Your task to perform on an android device: Search for pizza restaurants on Maps Image 0: 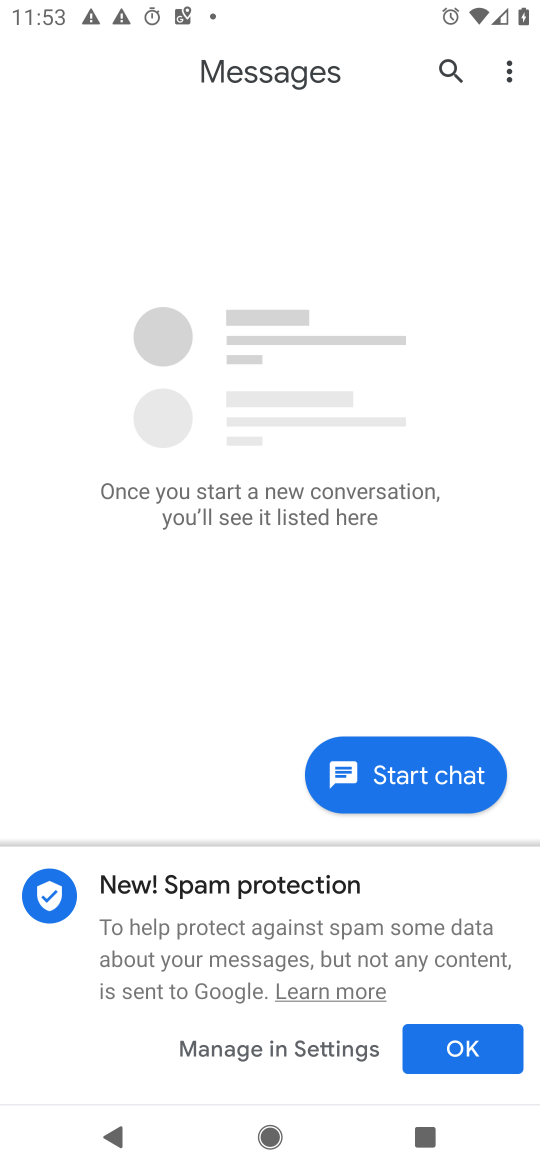
Step 0: click (313, 612)
Your task to perform on an android device: Search for pizza restaurants on Maps Image 1: 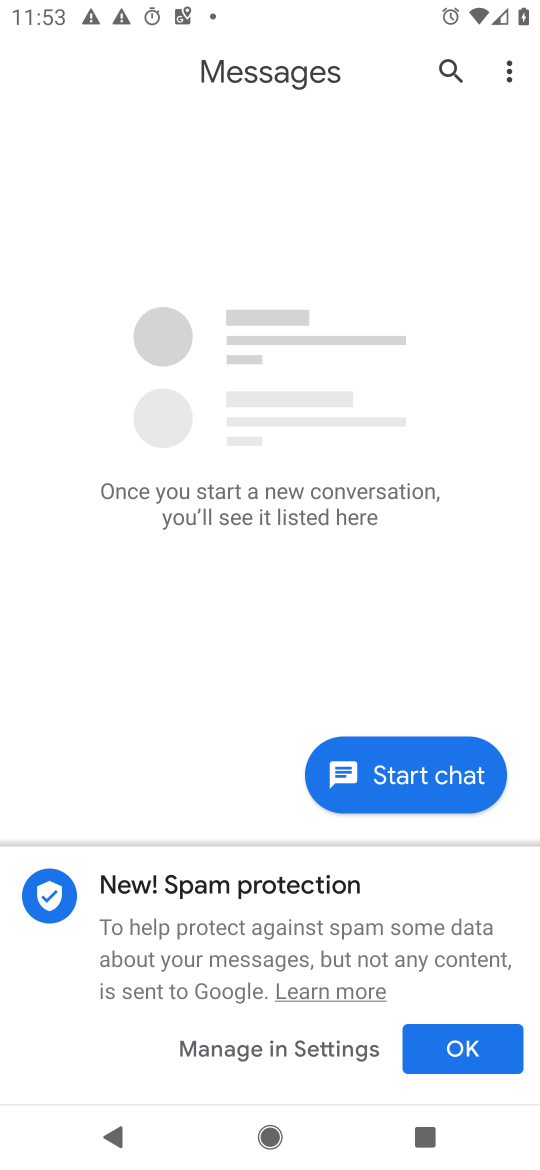
Step 1: press home button
Your task to perform on an android device: Search for pizza restaurants on Maps Image 2: 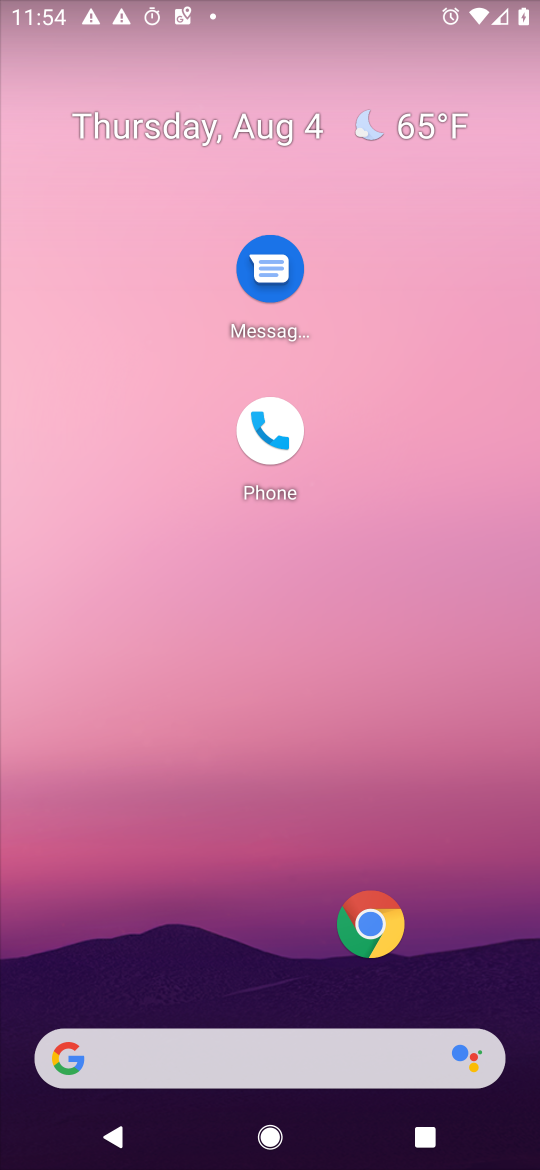
Step 2: drag from (243, 969) to (361, 61)
Your task to perform on an android device: Search for pizza restaurants on Maps Image 3: 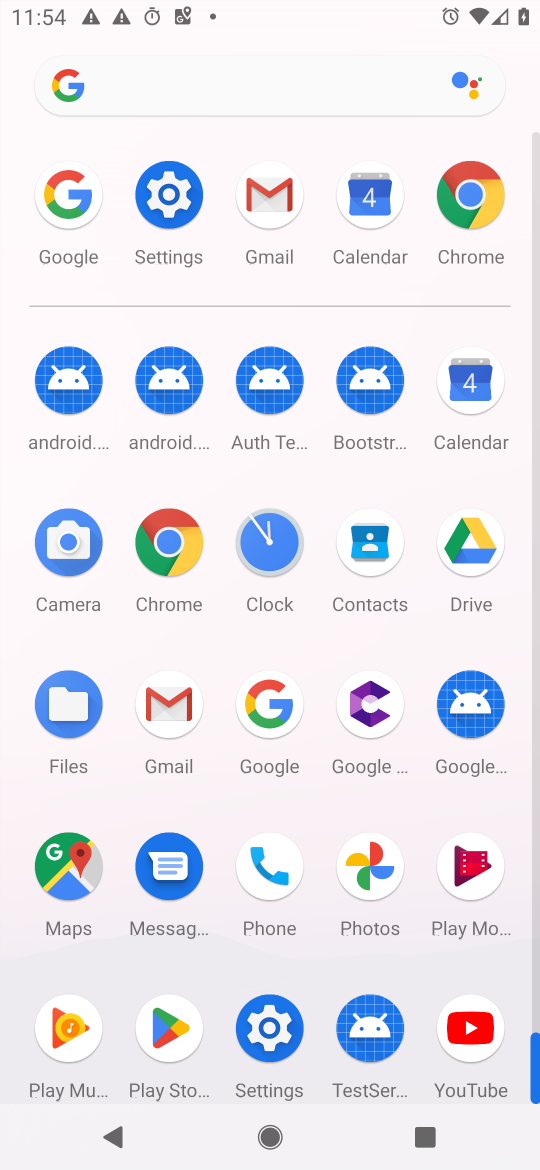
Step 3: click (63, 854)
Your task to perform on an android device: Search for pizza restaurants on Maps Image 4: 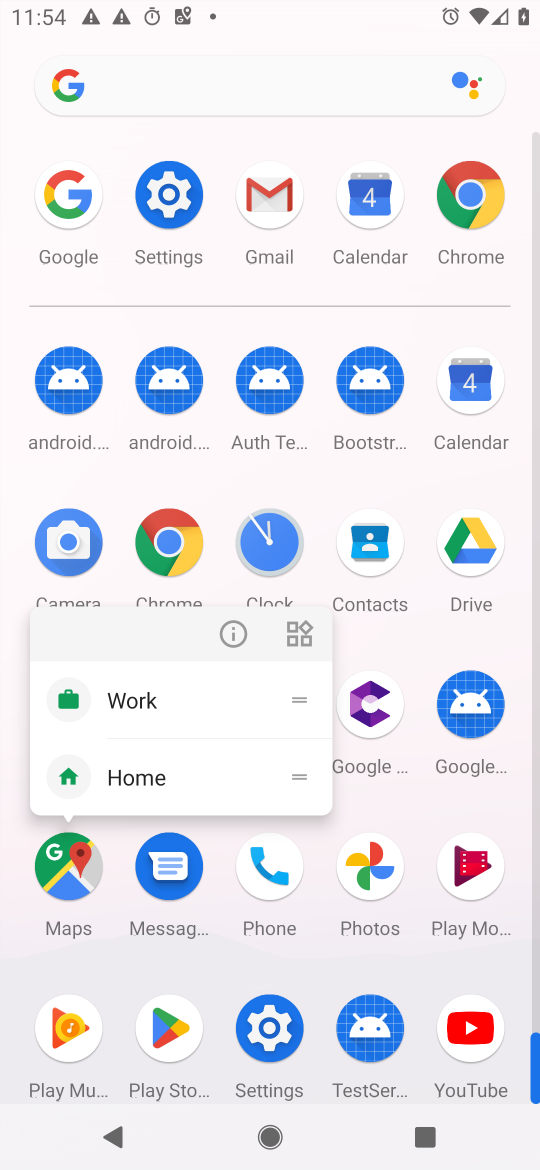
Step 4: click (229, 635)
Your task to perform on an android device: Search for pizza restaurants on Maps Image 5: 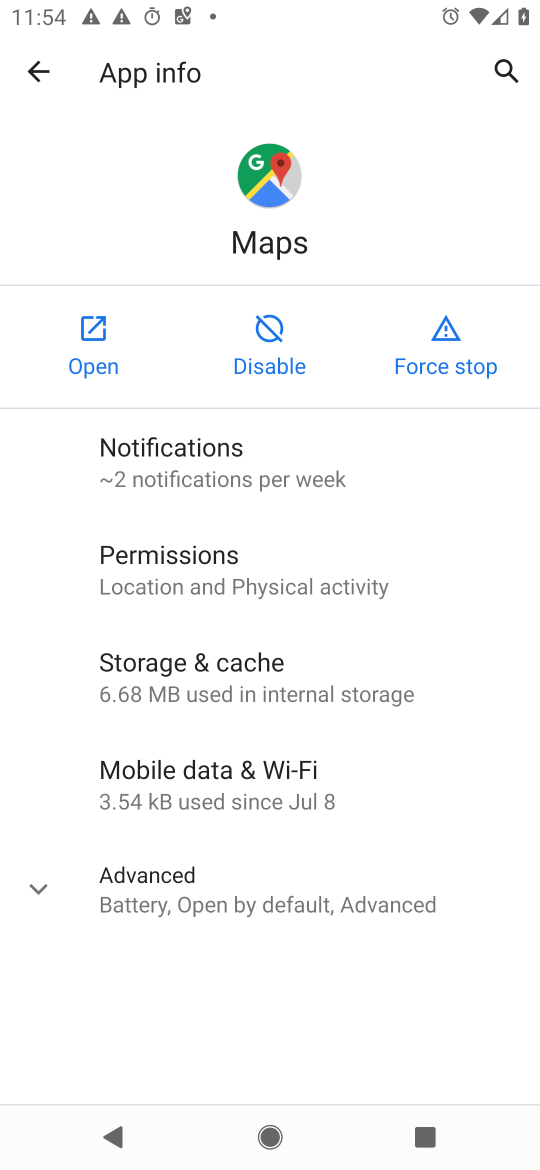
Step 5: click (69, 338)
Your task to perform on an android device: Search for pizza restaurants on Maps Image 6: 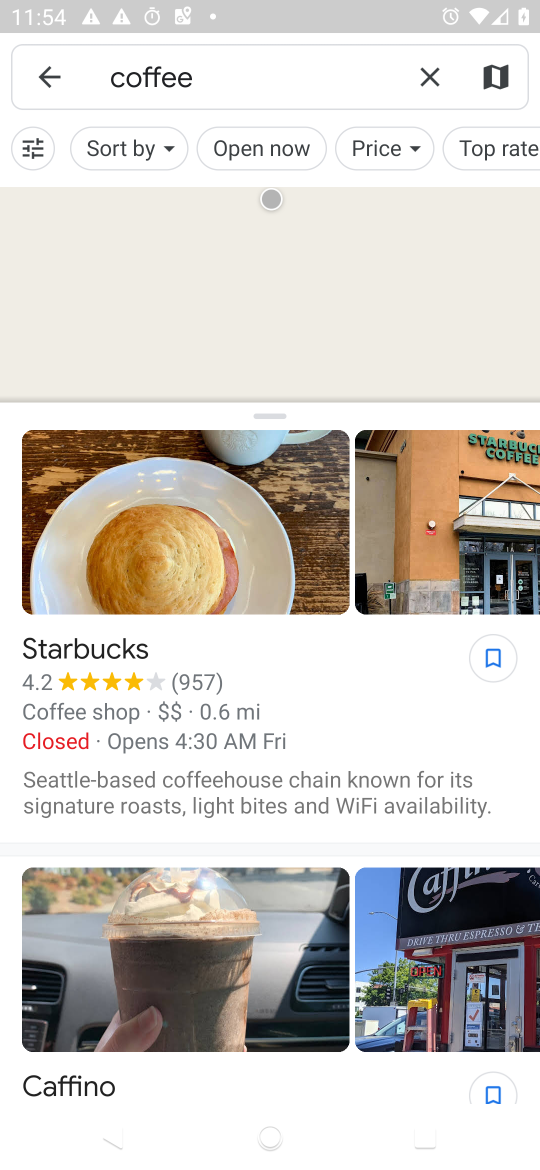
Step 6: click (423, 81)
Your task to perform on an android device: Search for pizza restaurants on Maps Image 7: 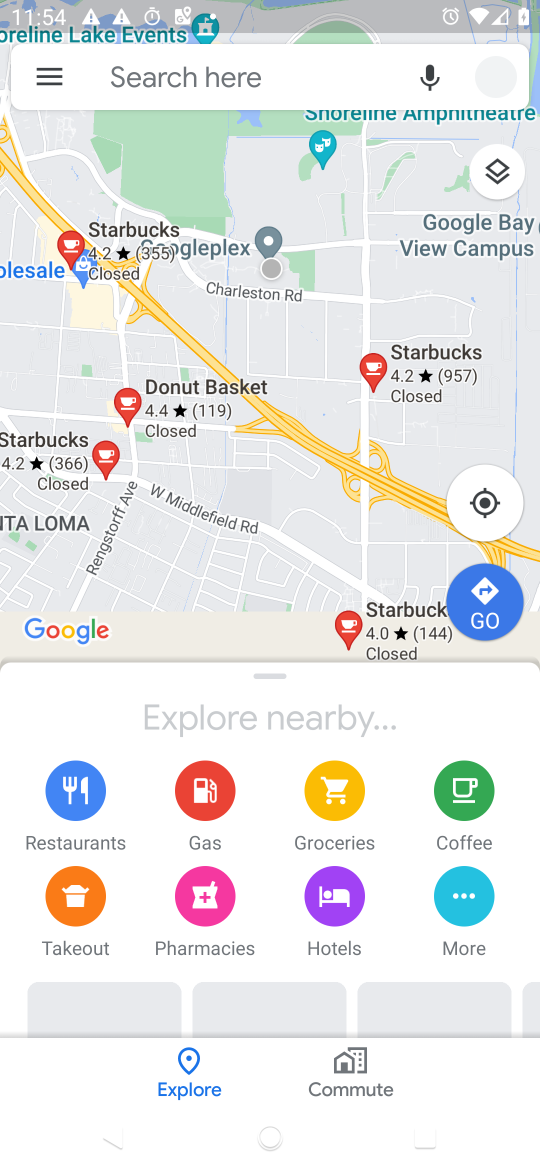
Step 7: click (159, 74)
Your task to perform on an android device: Search for pizza restaurants on Maps Image 8: 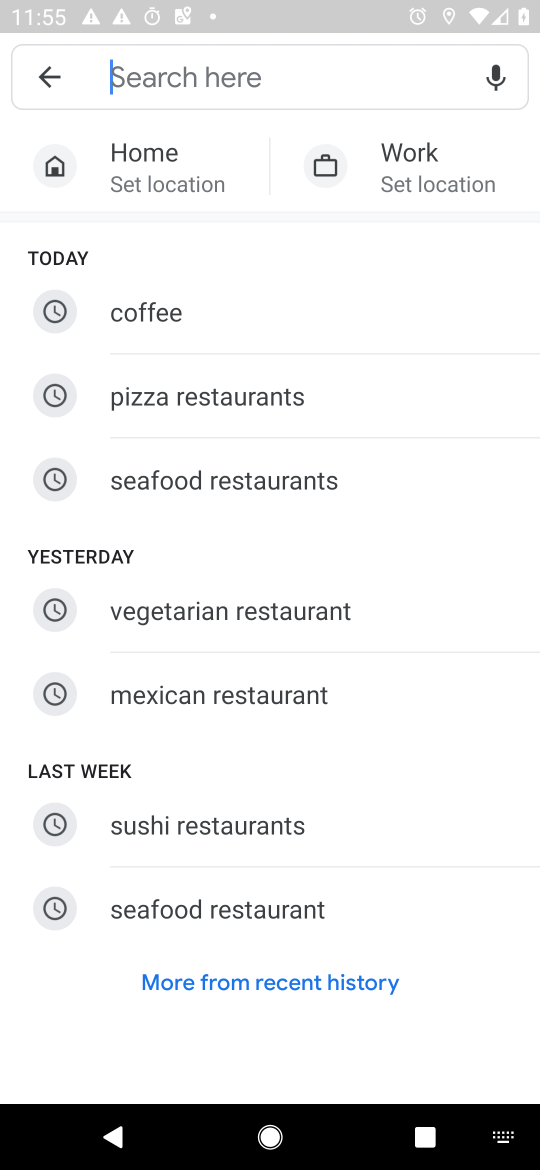
Step 8: type "pizzaa "
Your task to perform on an android device: Search for pizza restaurants on Maps Image 9: 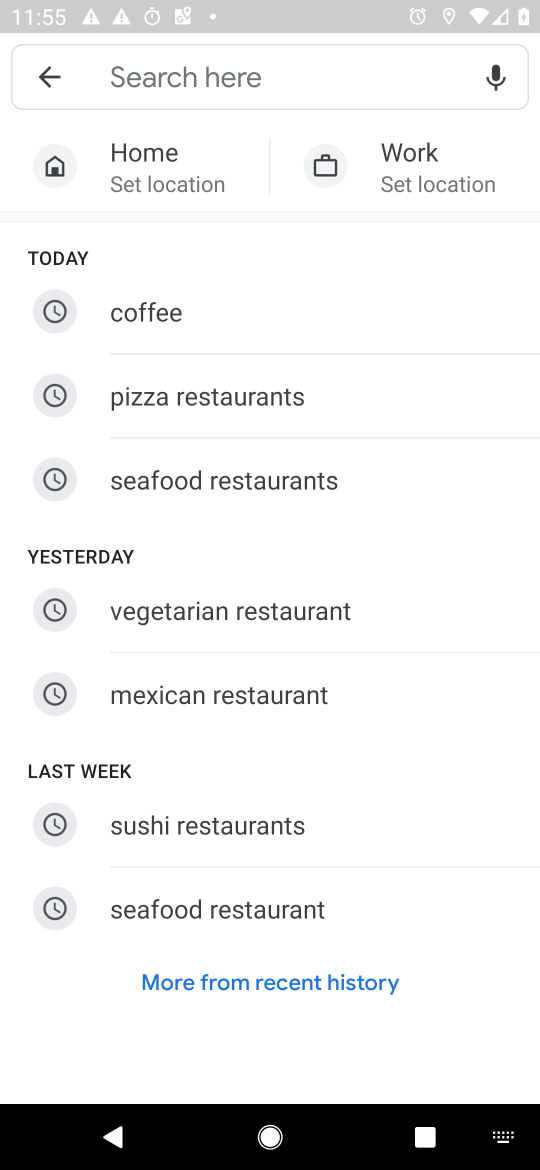
Step 9: click (136, 398)
Your task to perform on an android device: Search for pizza restaurants on Maps Image 10: 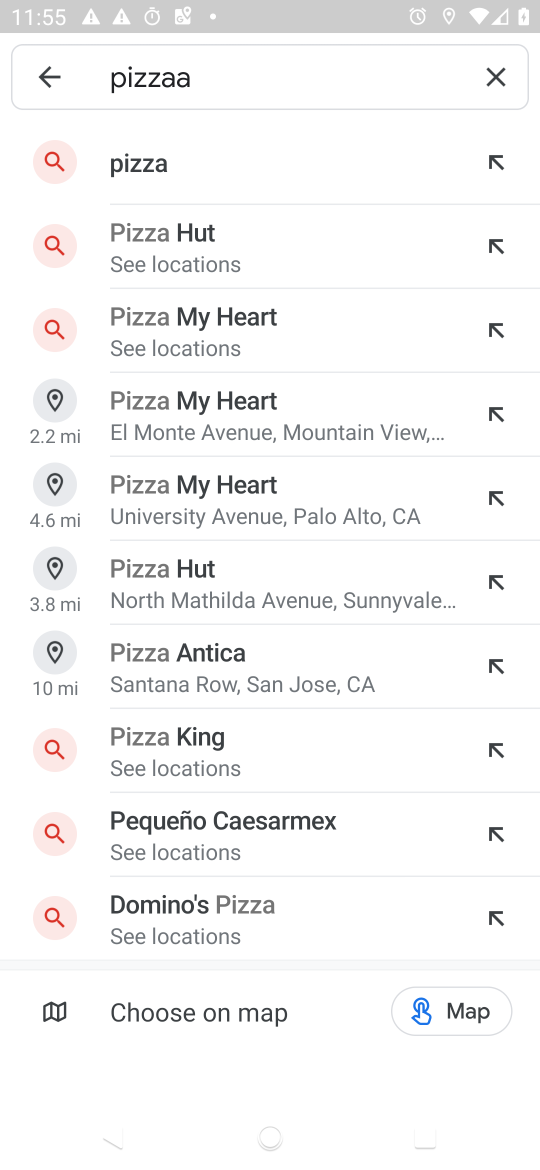
Step 10: drag from (265, 732) to (329, 311)
Your task to perform on an android device: Search for pizza restaurants on Maps Image 11: 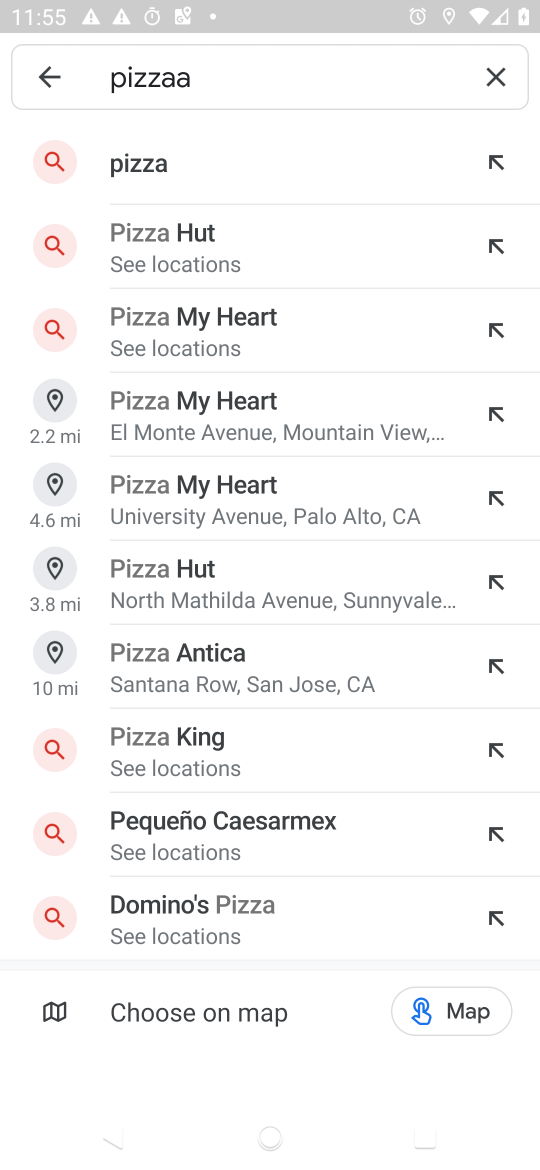
Step 11: click (487, 70)
Your task to perform on an android device: Search for pizza restaurants on Maps Image 12: 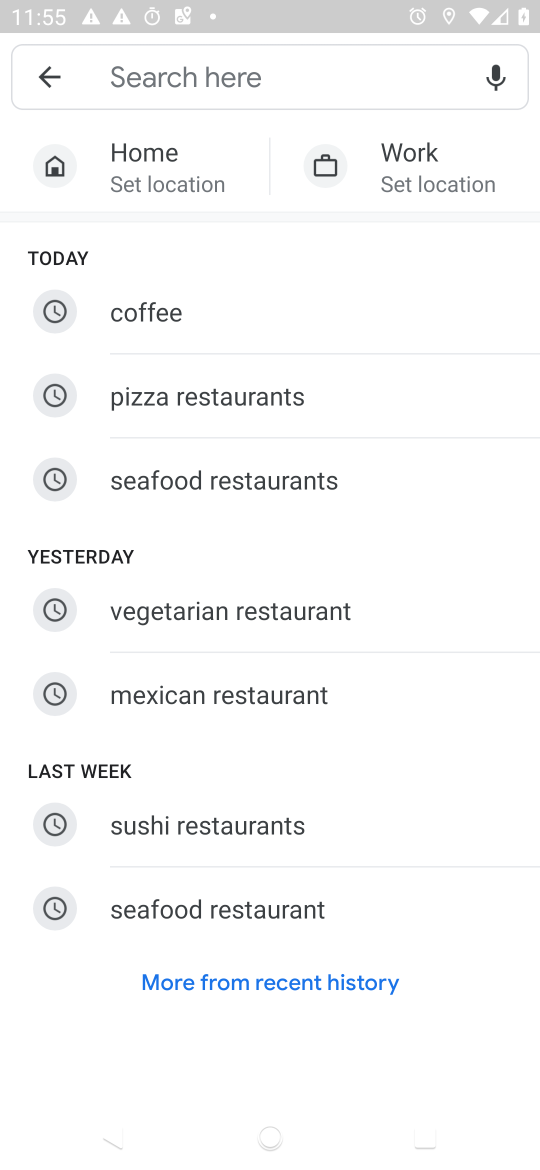
Step 12: click (213, 83)
Your task to perform on an android device: Search for pizza restaurants on Maps Image 13: 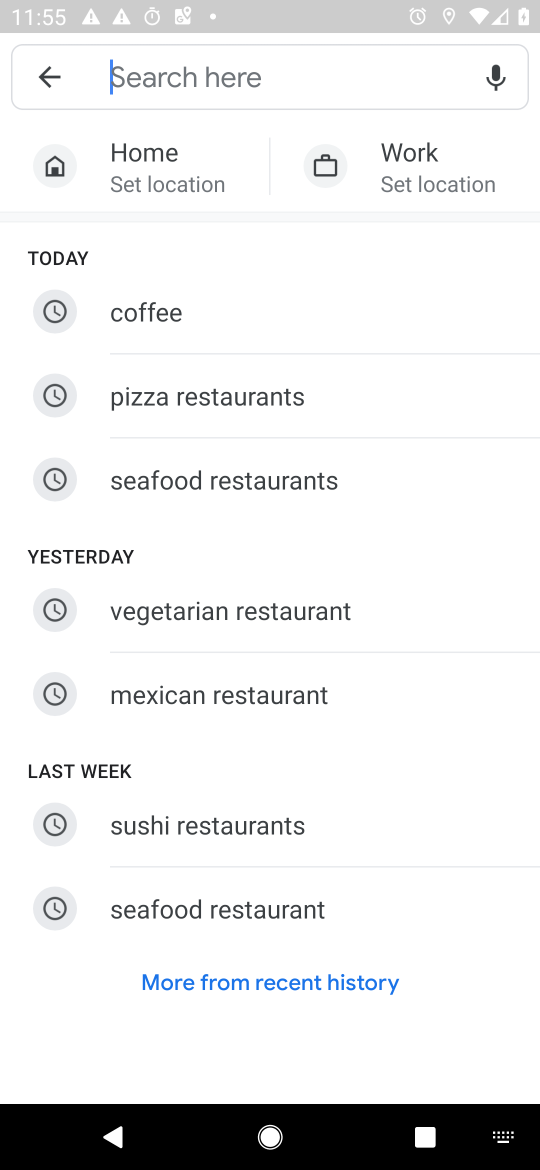
Step 13: click (152, 403)
Your task to perform on an android device: Search for pizza restaurants on Maps Image 14: 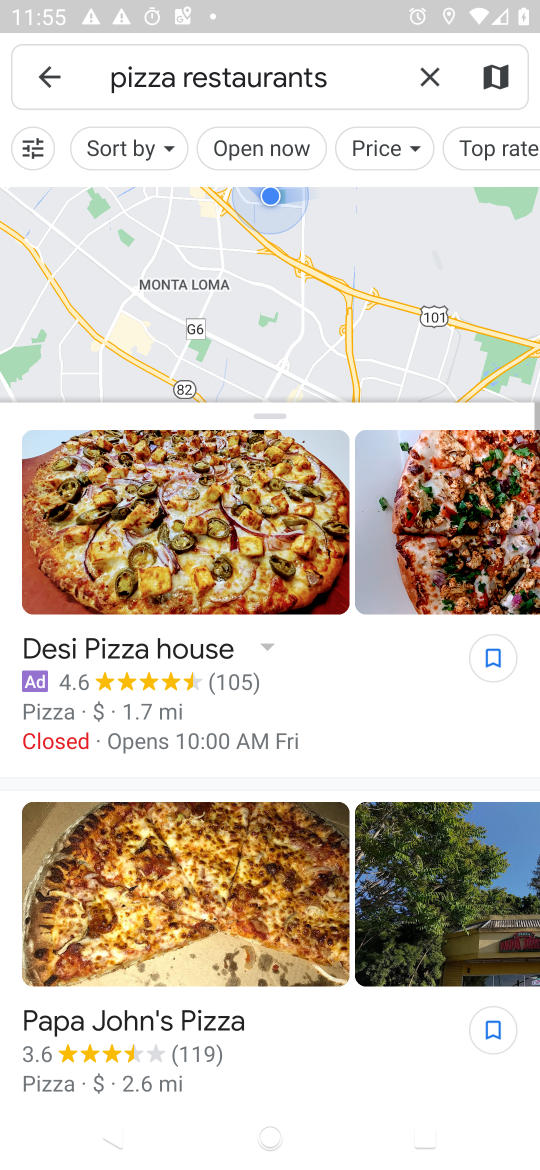
Step 14: task complete